Your task to perform on an android device: Add macbook pro 15 inch to the cart on target.com Image 0: 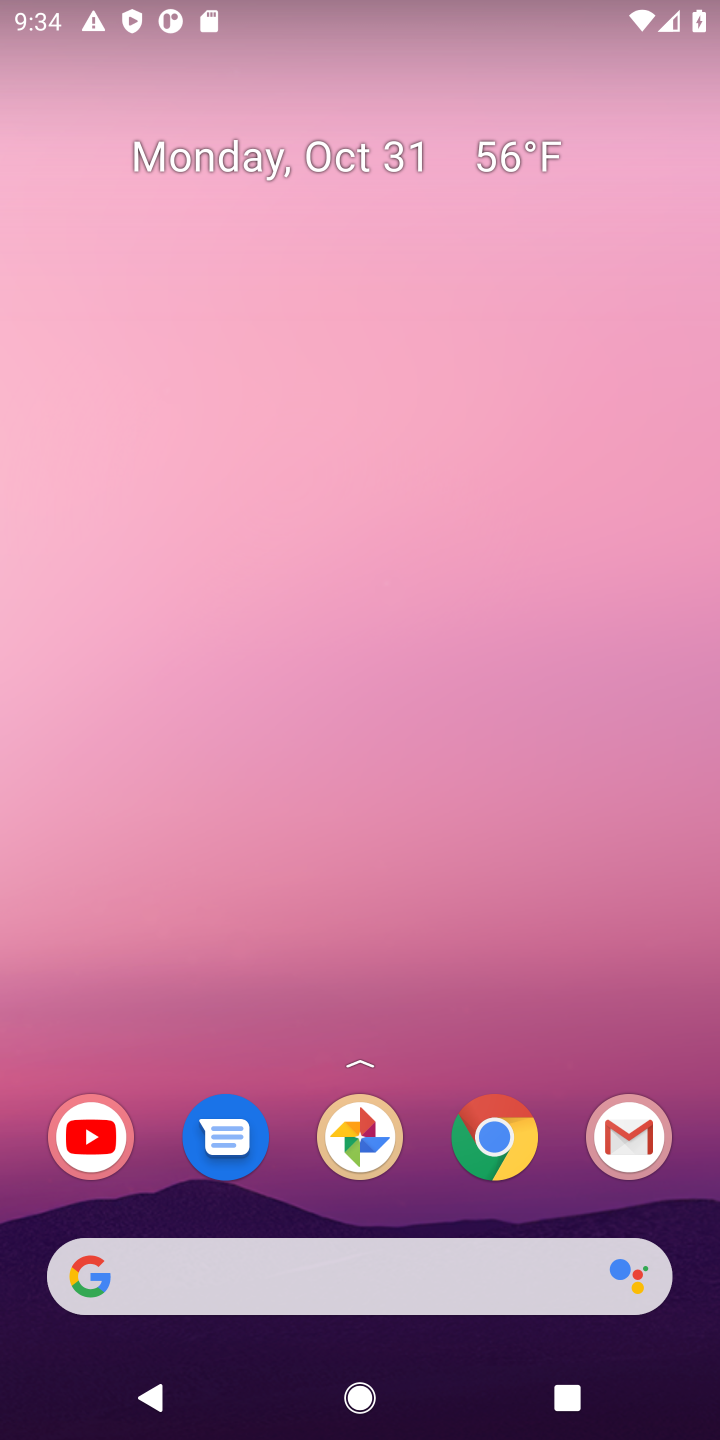
Step 0: click (491, 1134)
Your task to perform on an android device: Add macbook pro 15 inch to the cart on target.com Image 1: 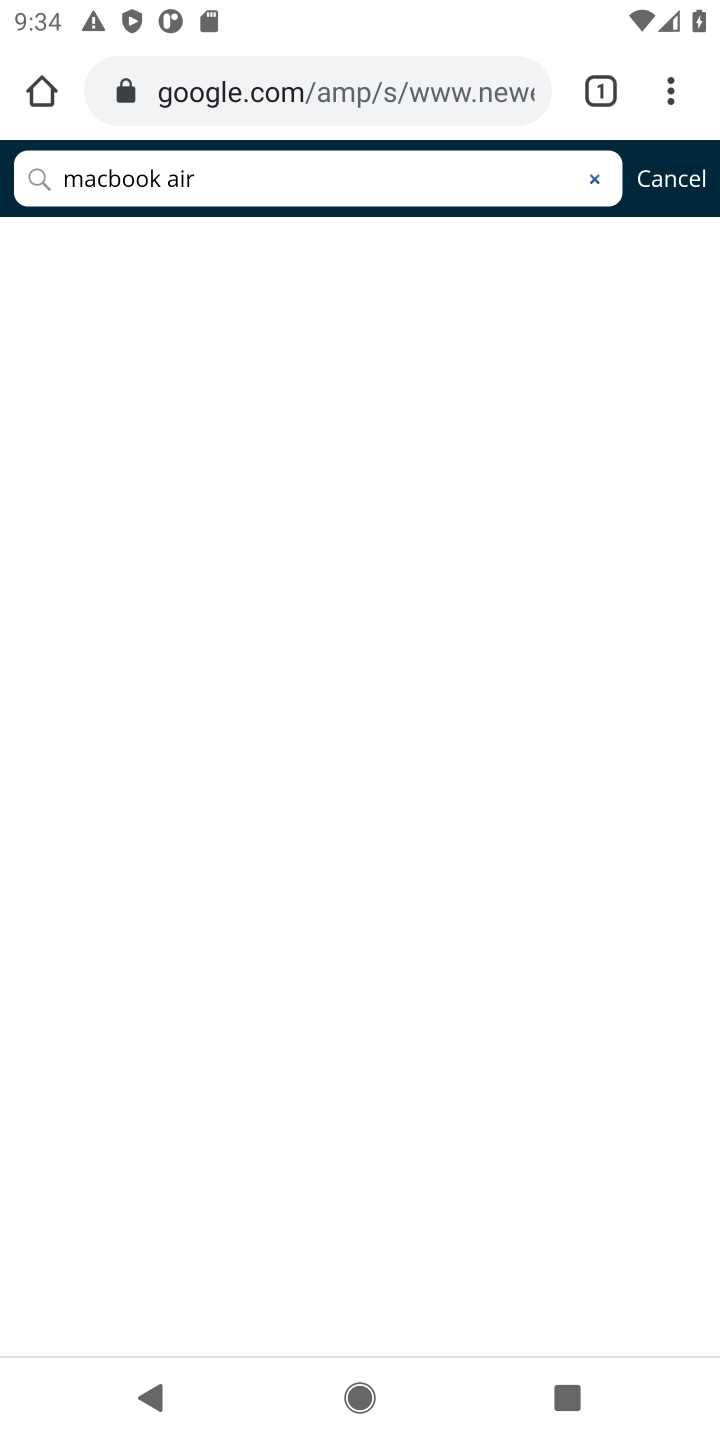
Step 1: click (346, 95)
Your task to perform on an android device: Add macbook pro 15 inch to the cart on target.com Image 2: 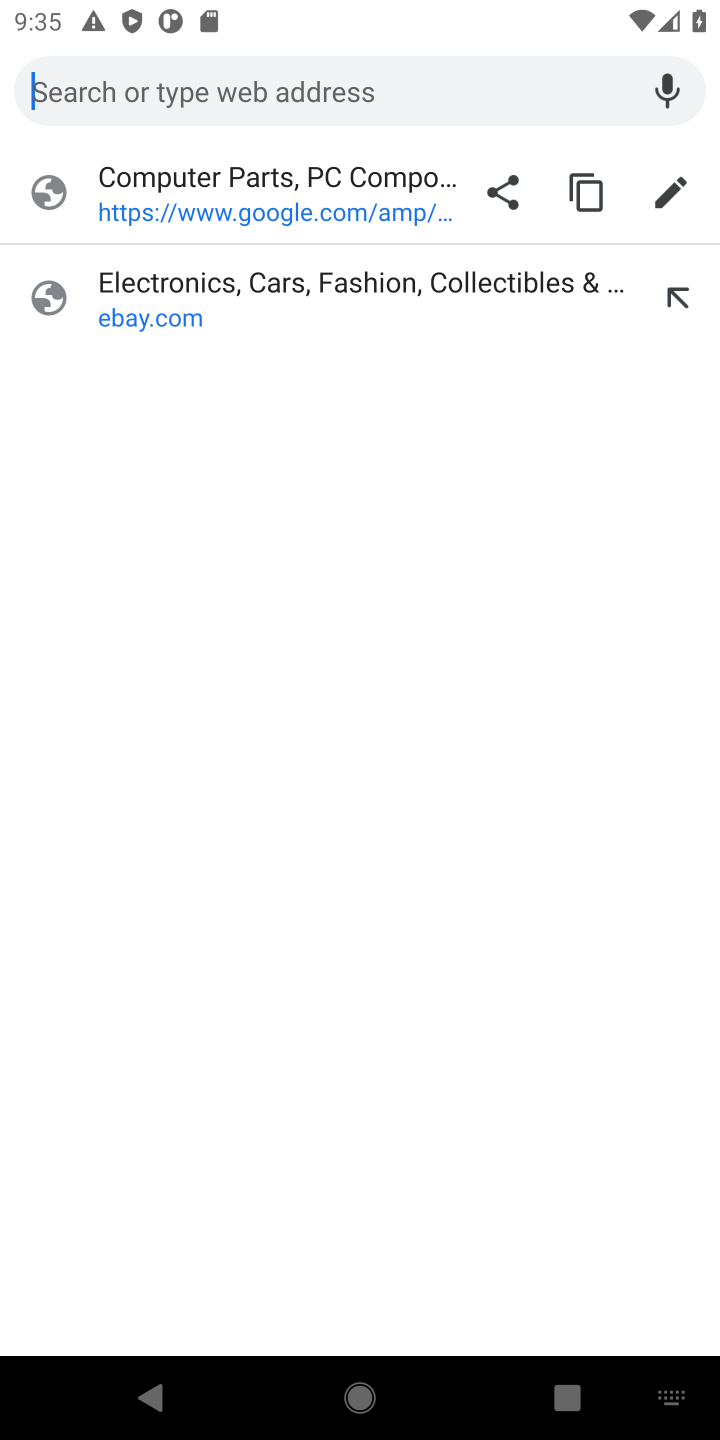
Step 2: type "target.com"
Your task to perform on an android device: Add macbook pro 15 inch to the cart on target.com Image 3: 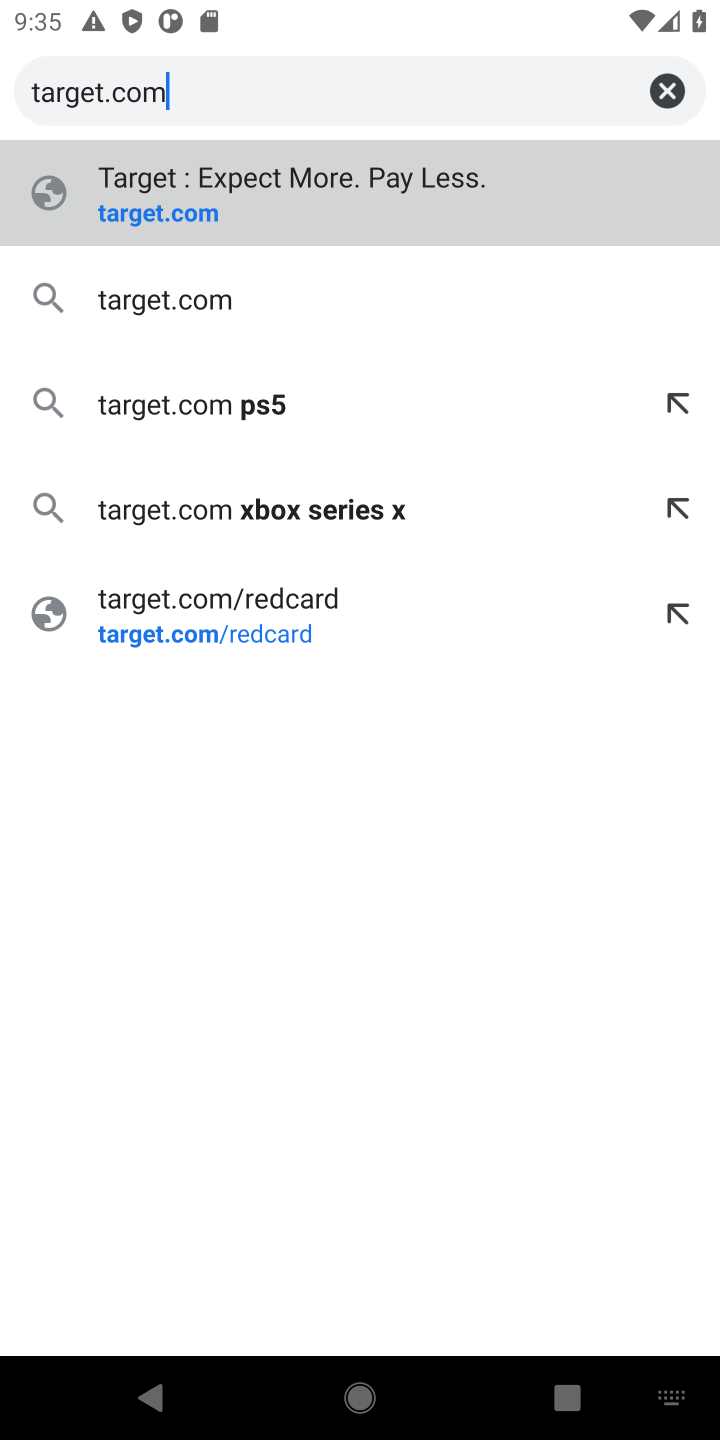
Step 3: click (181, 310)
Your task to perform on an android device: Add macbook pro 15 inch to the cart on target.com Image 4: 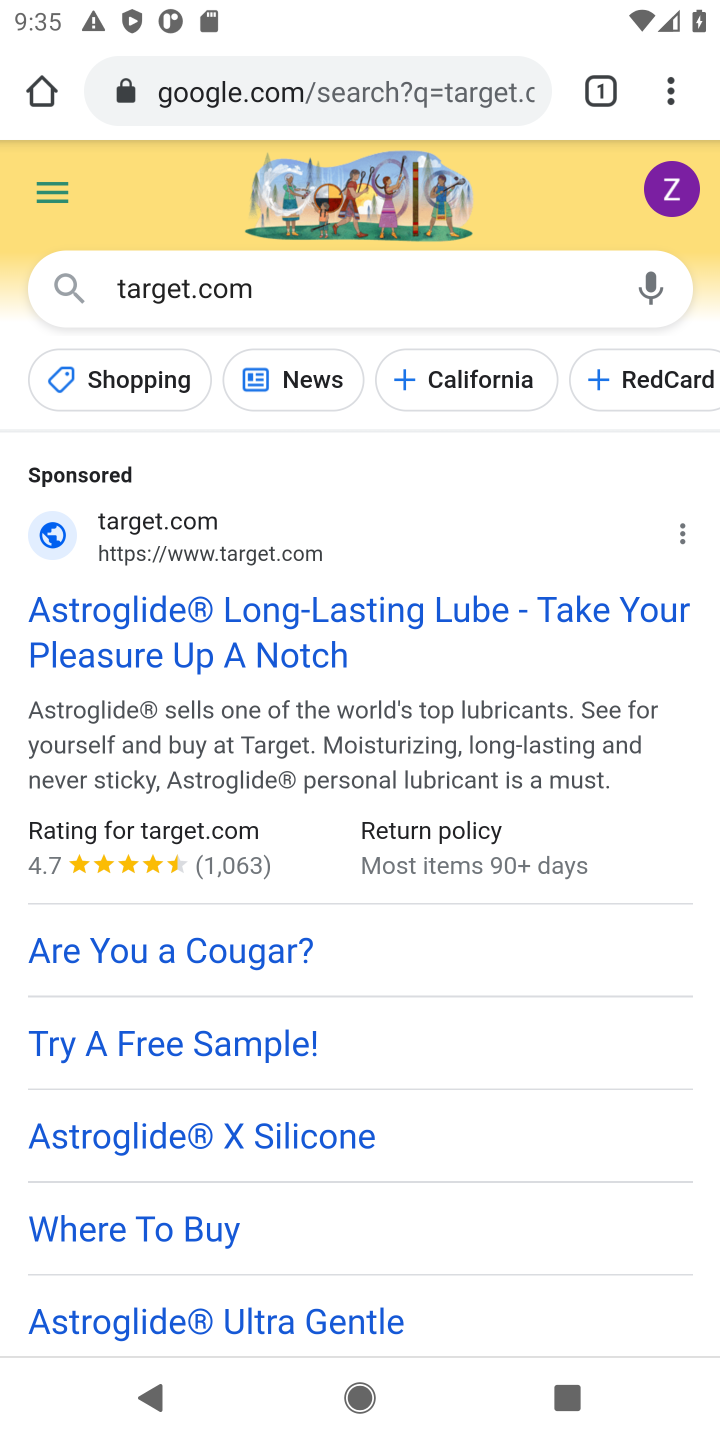
Step 4: drag from (407, 1068) to (406, 456)
Your task to perform on an android device: Add macbook pro 15 inch to the cart on target.com Image 5: 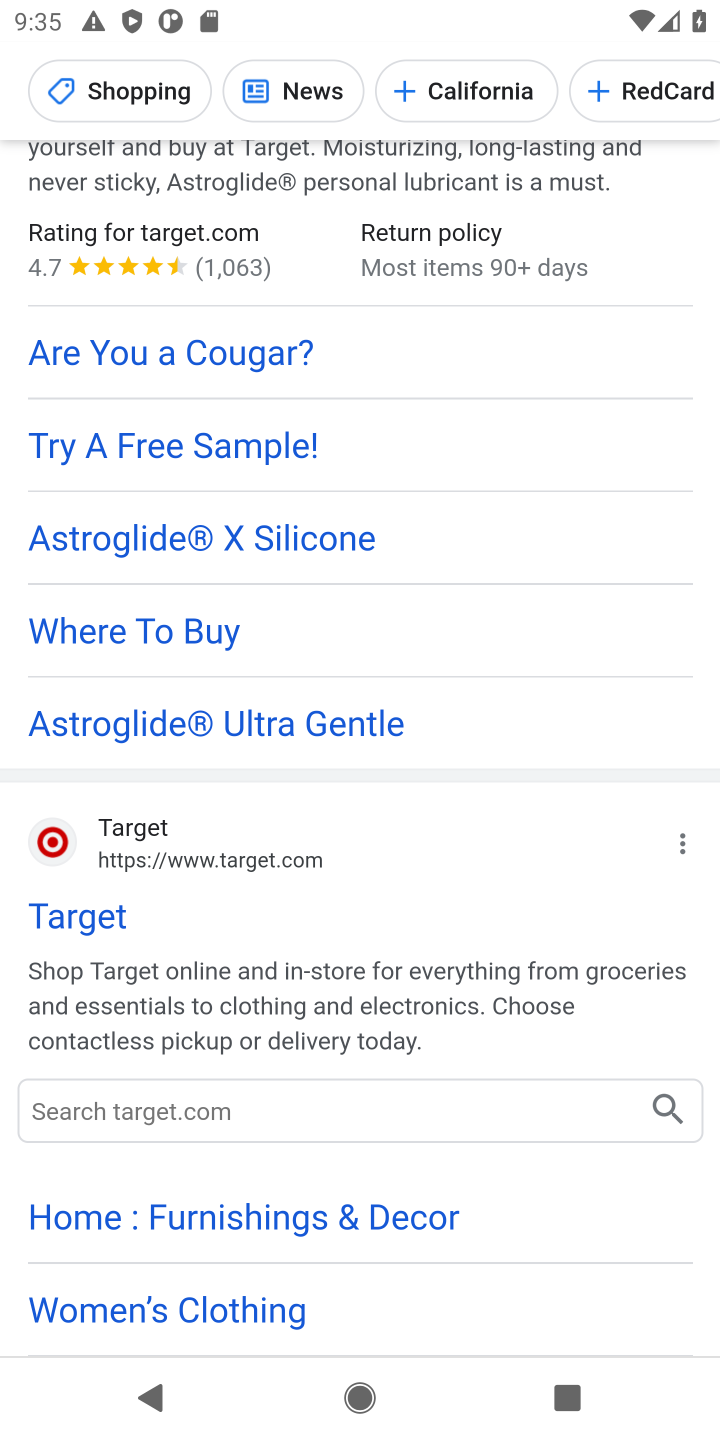
Step 5: click (162, 851)
Your task to perform on an android device: Add macbook pro 15 inch to the cart on target.com Image 6: 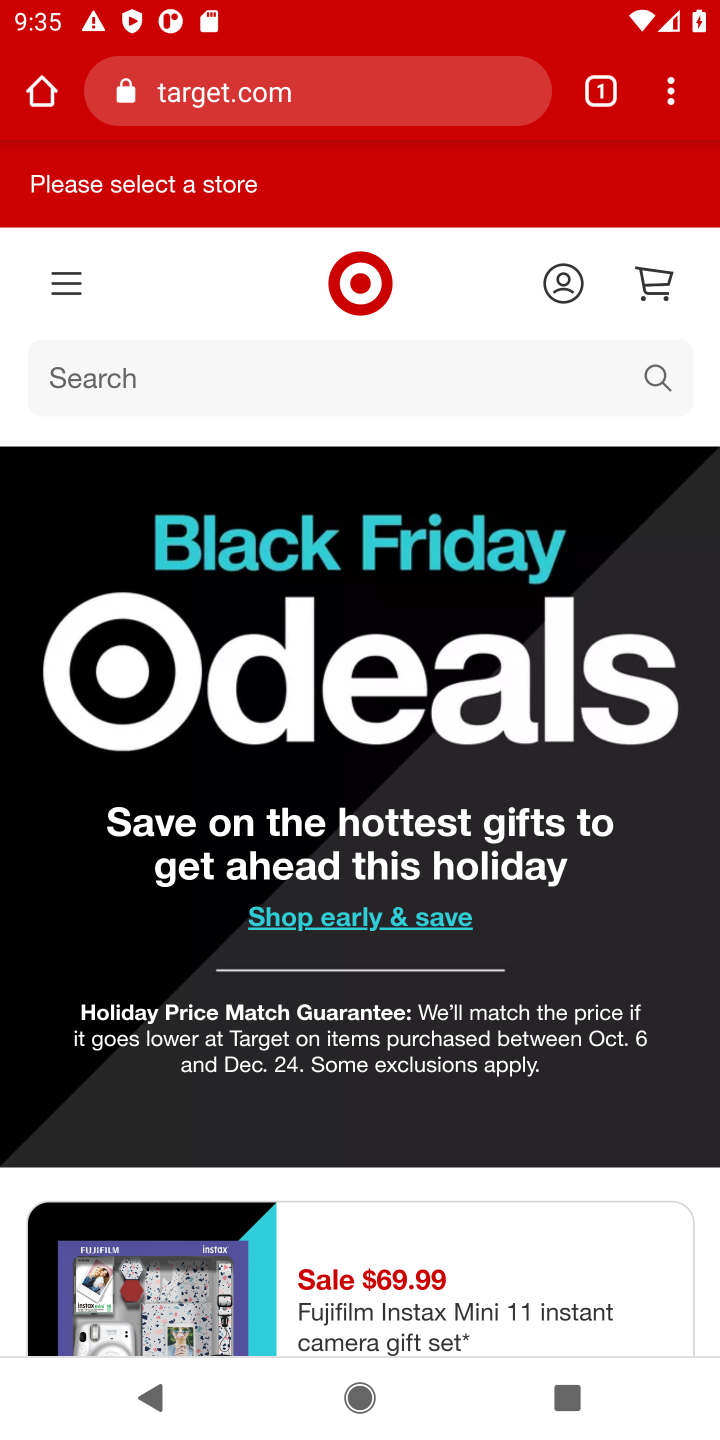
Step 6: click (449, 384)
Your task to perform on an android device: Add macbook pro 15 inch to the cart on target.com Image 7: 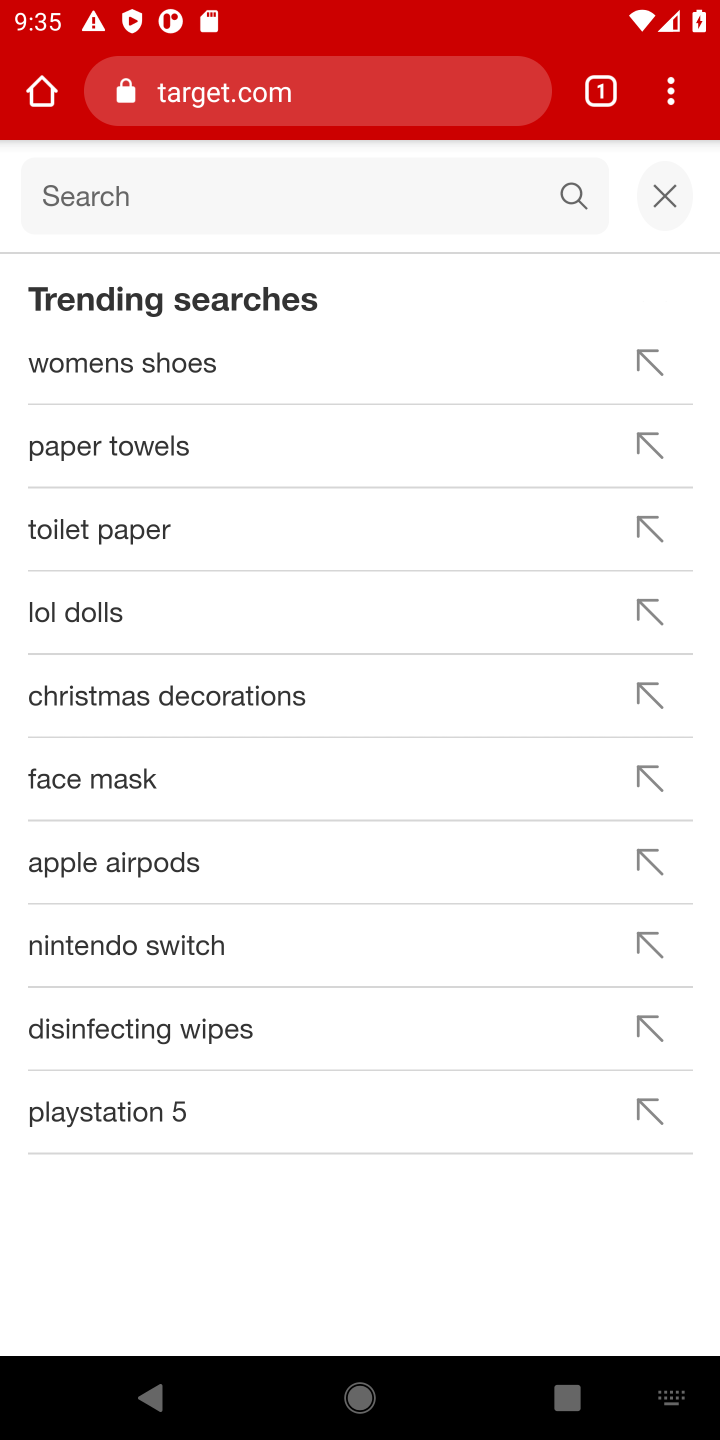
Step 7: type "macbook pro 15 inch"
Your task to perform on an android device: Add macbook pro 15 inch to the cart on target.com Image 8: 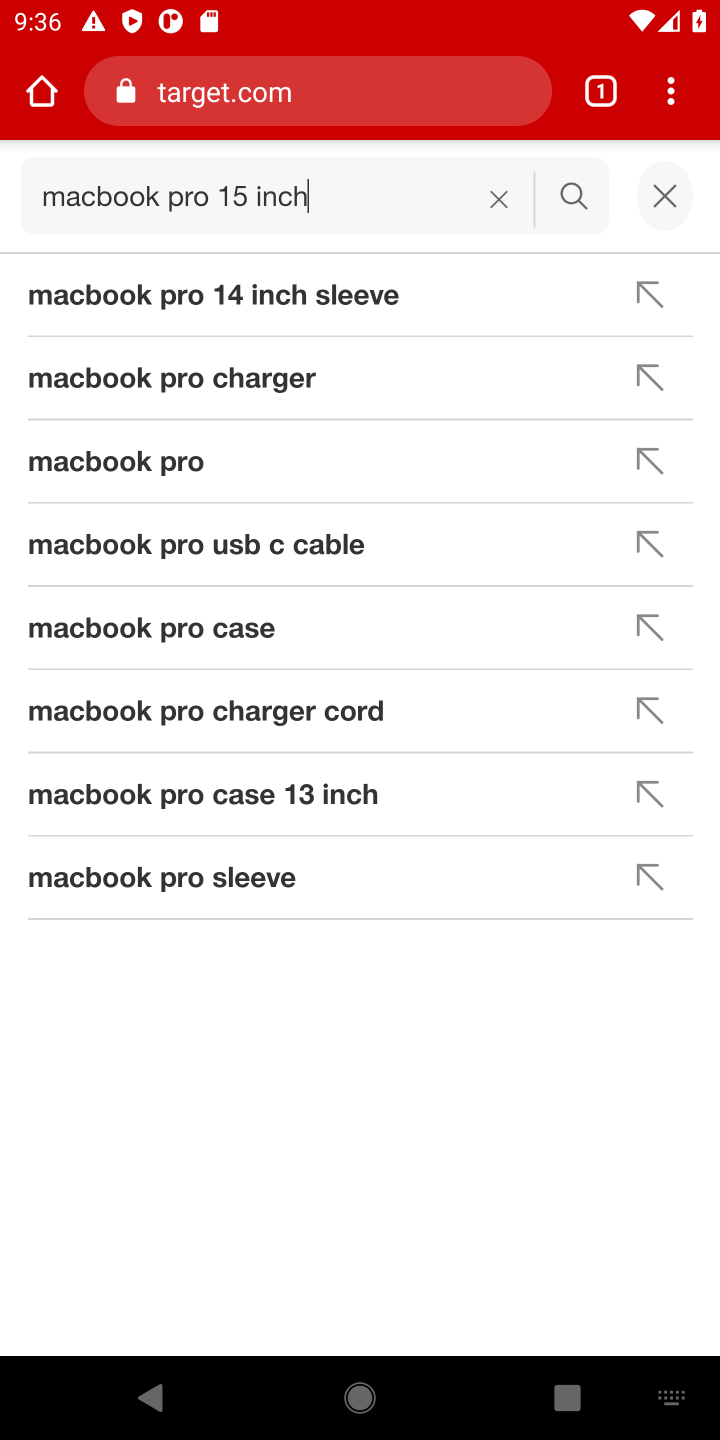
Step 8: click (566, 193)
Your task to perform on an android device: Add macbook pro 15 inch to the cart on target.com Image 9: 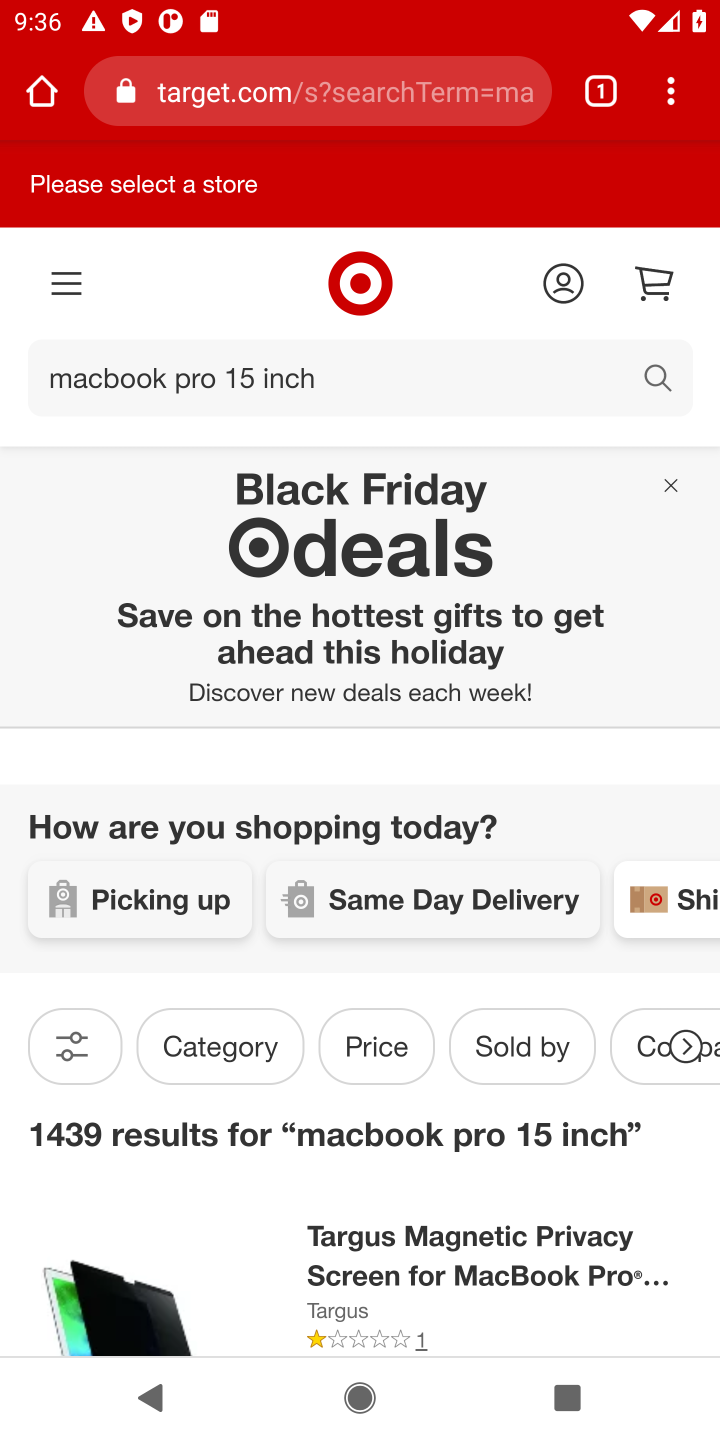
Step 9: drag from (402, 993) to (492, 407)
Your task to perform on an android device: Add macbook pro 15 inch to the cart on target.com Image 10: 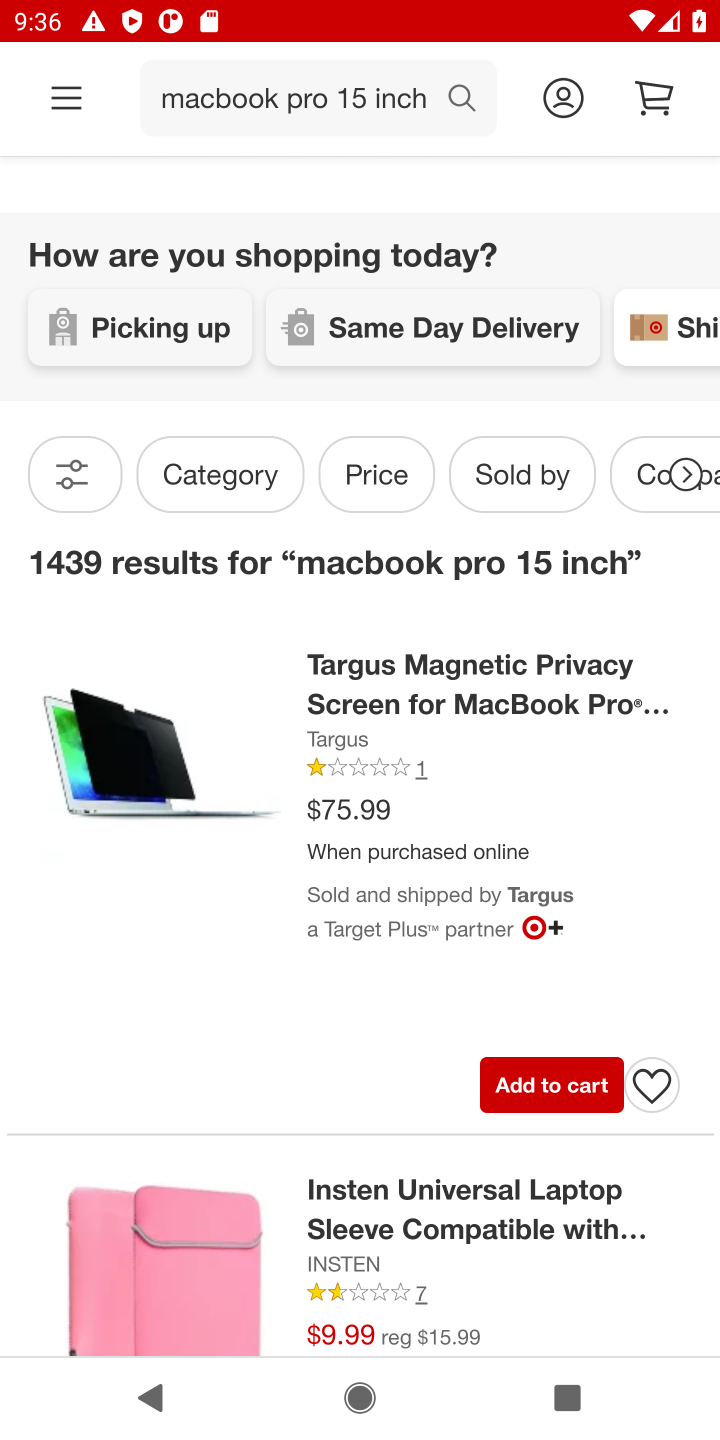
Step 10: click (518, 1093)
Your task to perform on an android device: Add macbook pro 15 inch to the cart on target.com Image 11: 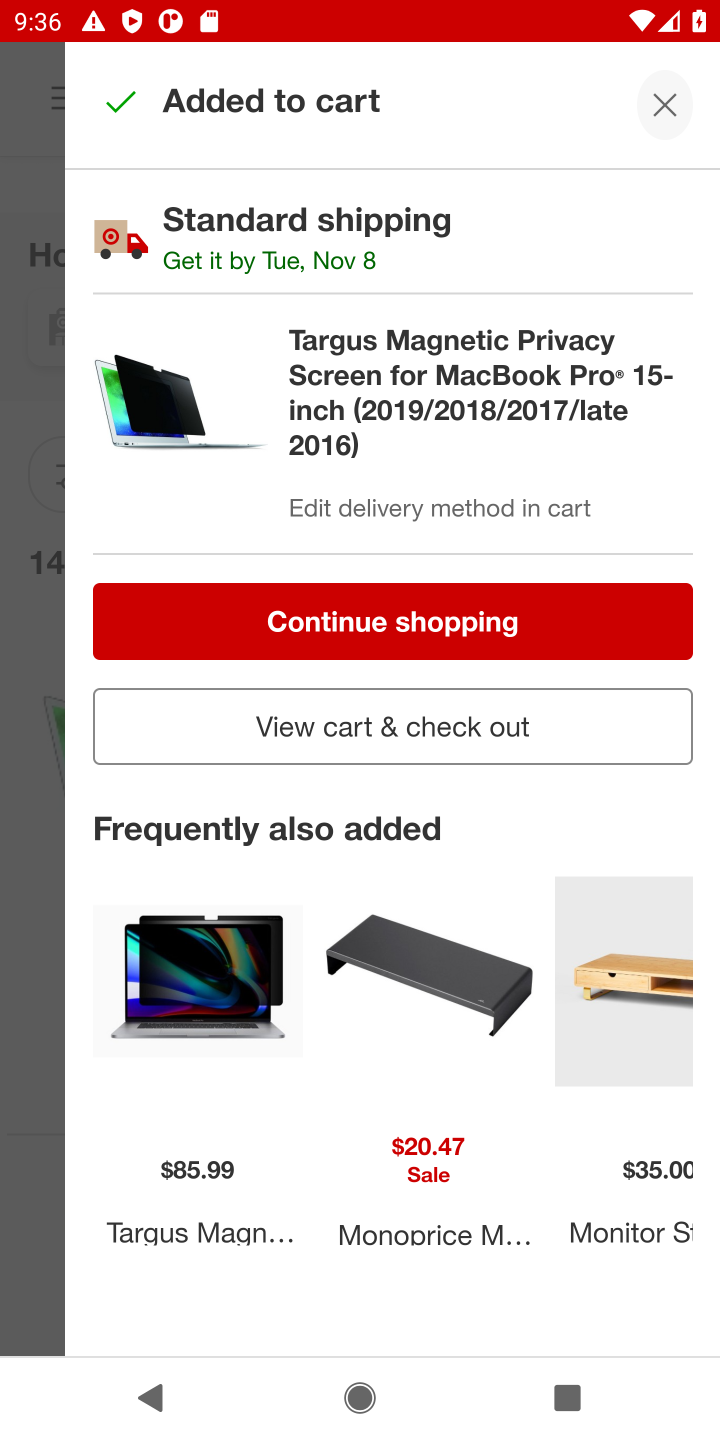
Step 11: click (125, 105)
Your task to perform on an android device: Add macbook pro 15 inch to the cart on target.com Image 12: 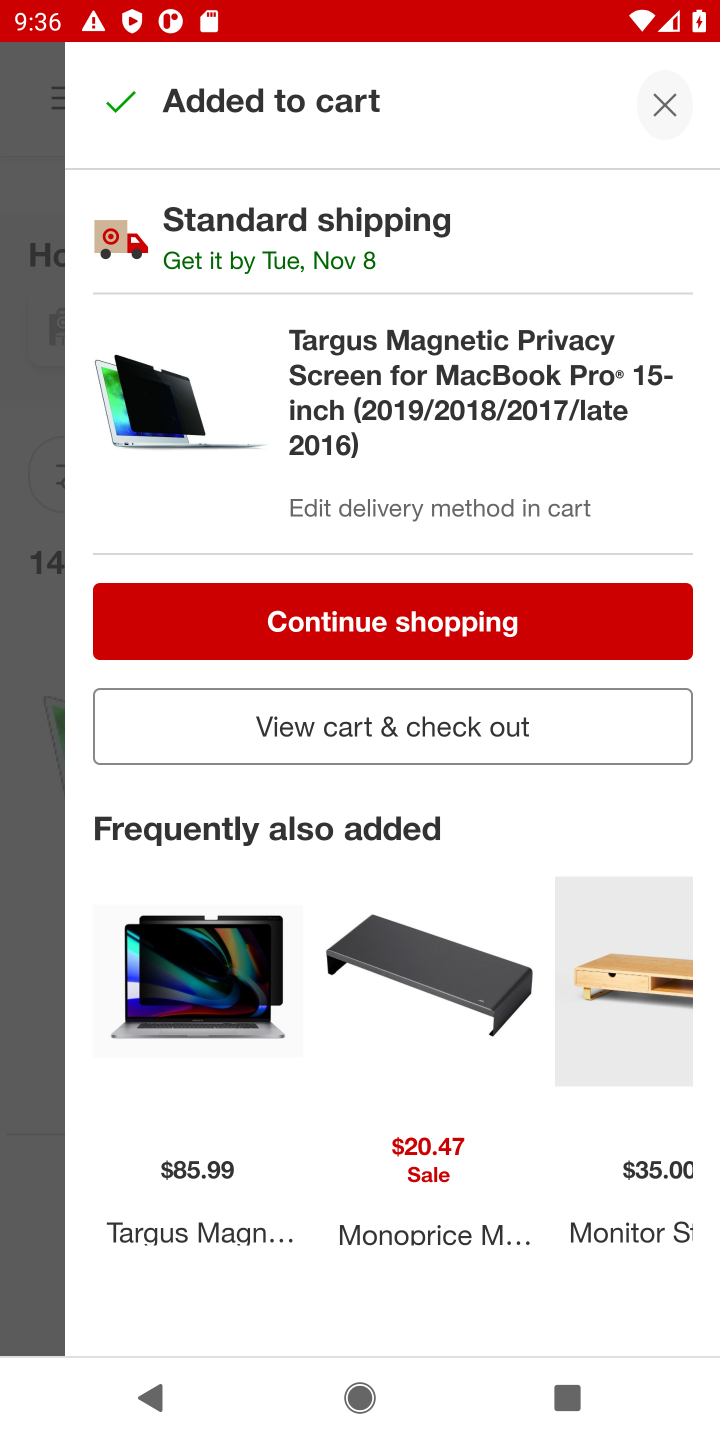
Step 12: click (125, 105)
Your task to perform on an android device: Add macbook pro 15 inch to the cart on target.com Image 13: 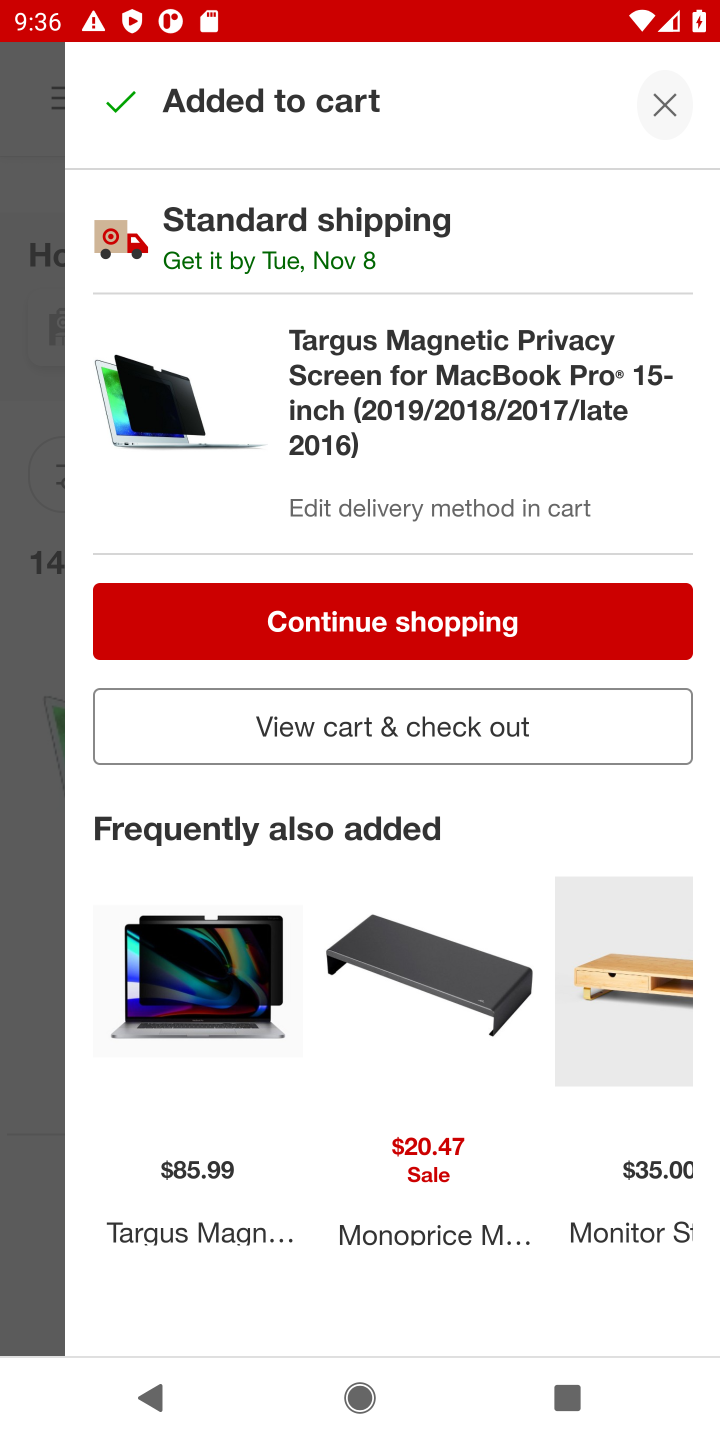
Step 13: click (450, 725)
Your task to perform on an android device: Add macbook pro 15 inch to the cart on target.com Image 14: 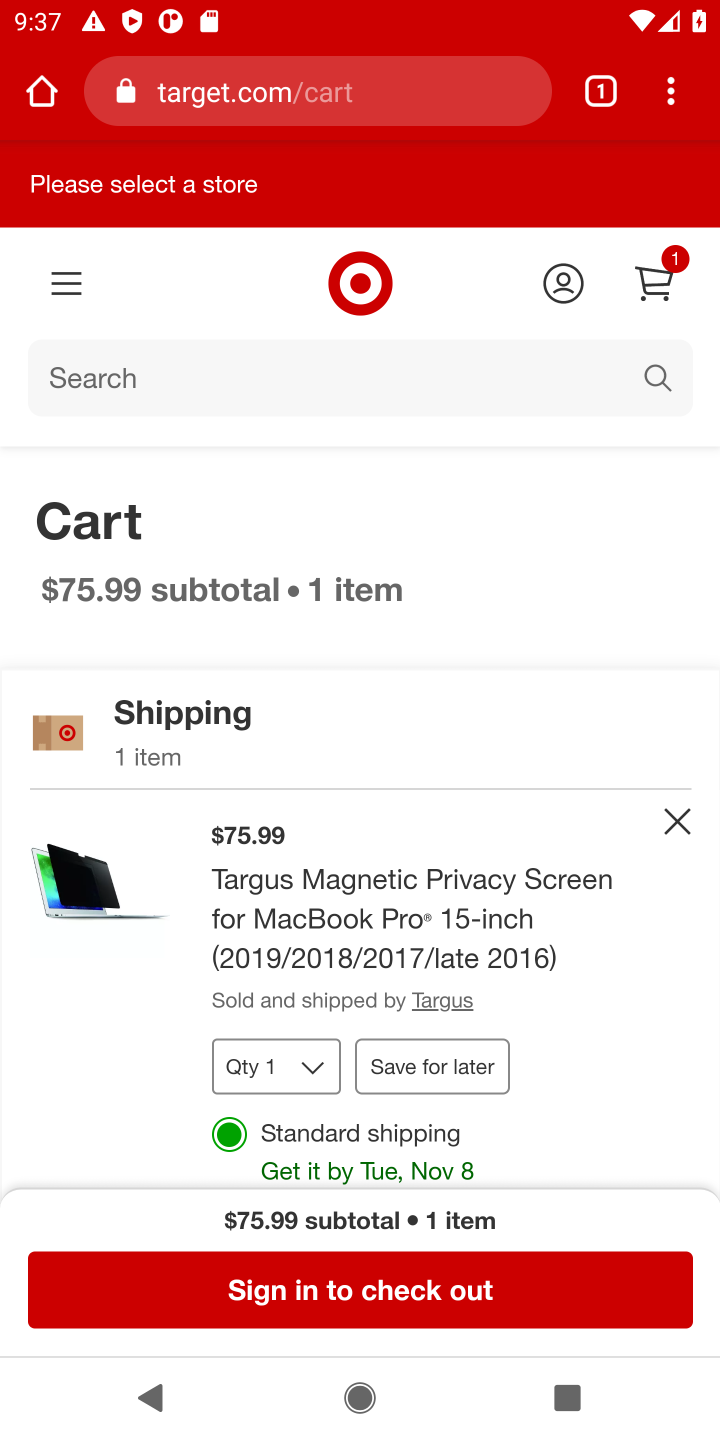
Step 14: task complete